Your task to perform on an android device: open app "Walmart Shopping & Grocery" (install if not already installed) Image 0: 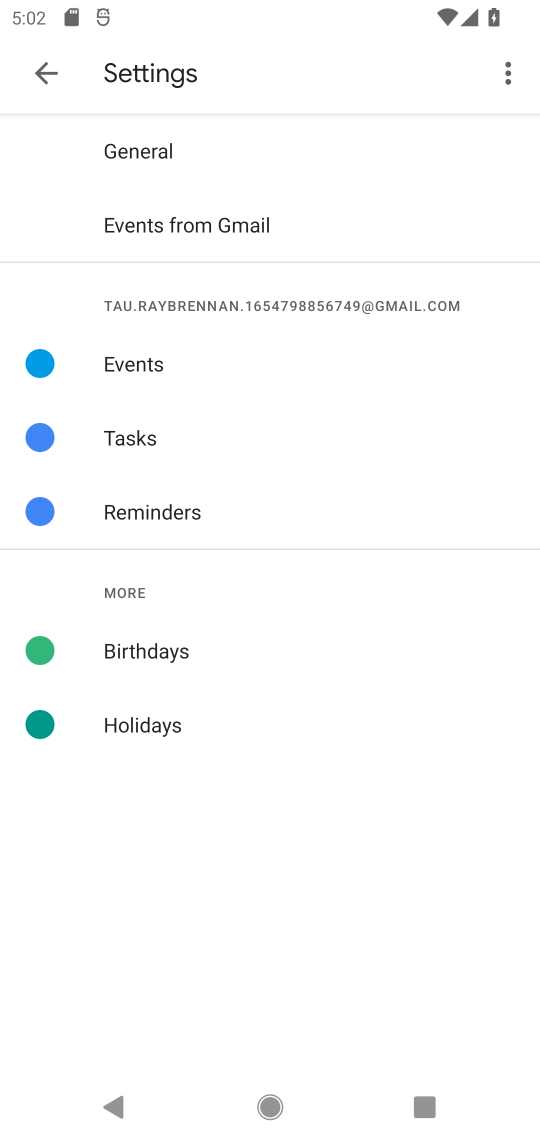
Step 0: press home button
Your task to perform on an android device: open app "Walmart Shopping & Grocery" (install if not already installed) Image 1: 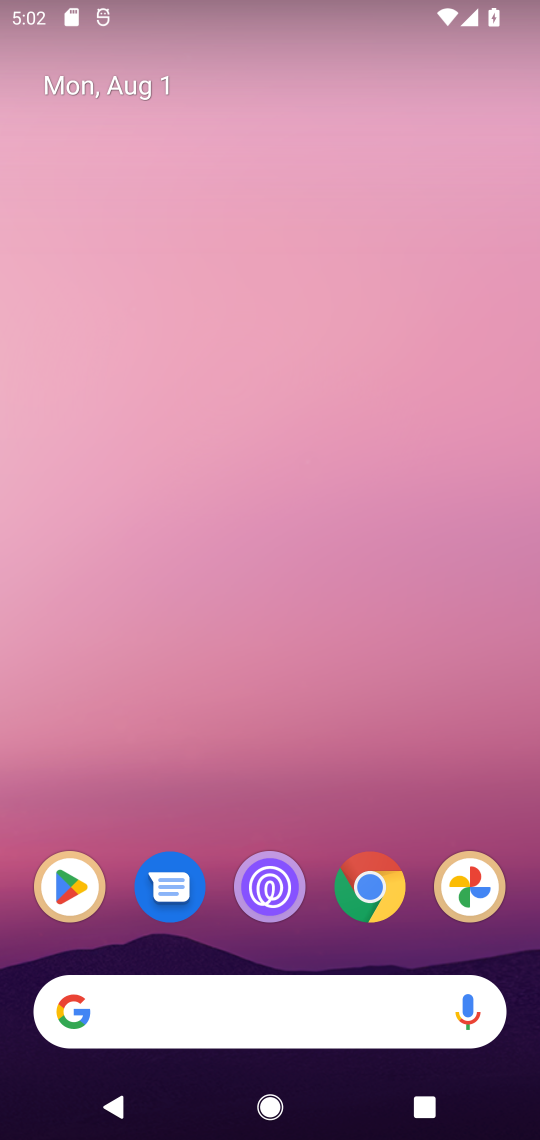
Step 1: click (76, 854)
Your task to perform on an android device: open app "Walmart Shopping & Grocery" (install if not already installed) Image 2: 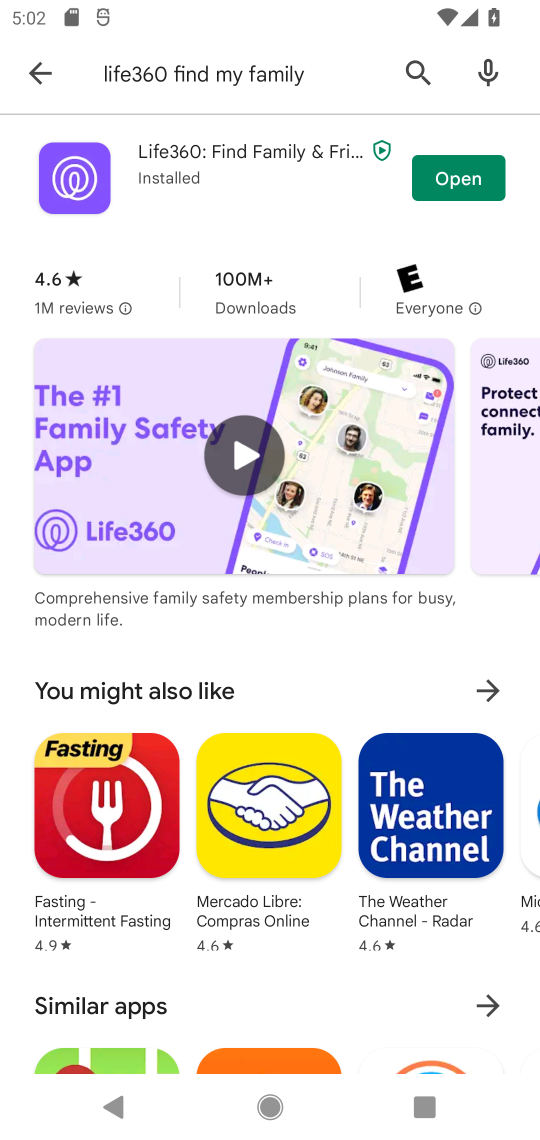
Step 2: click (27, 67)
Your task to perform on an android device: open app "Walmart Shopping & Grocery" (install if not already installed) Image 3: 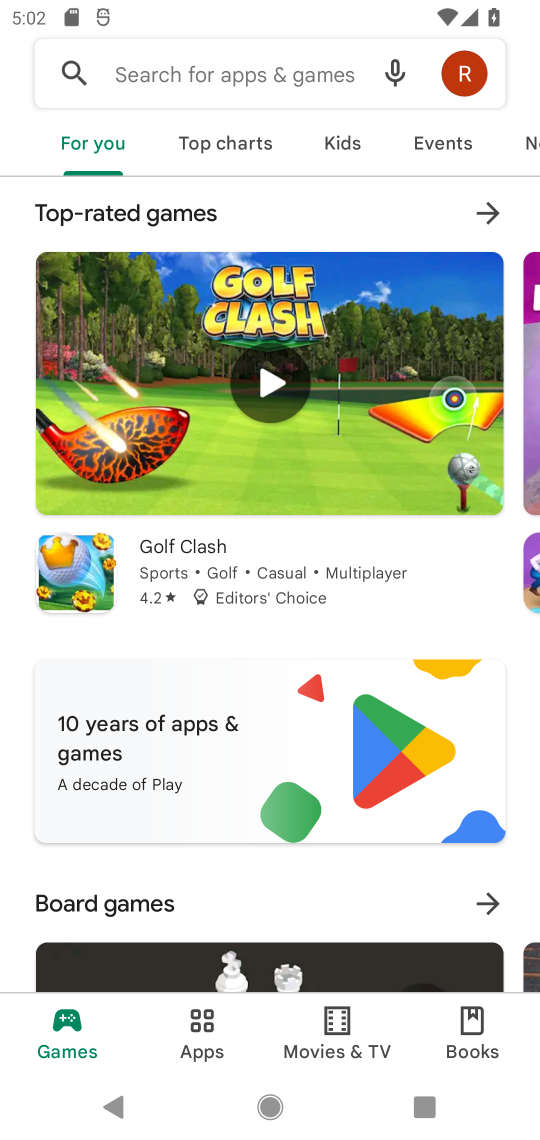
Step 3: click (142, 65)
Your task to perform on an android device: open app "Walmart Shopping & Grocery" (install if not already installed) Image 4: 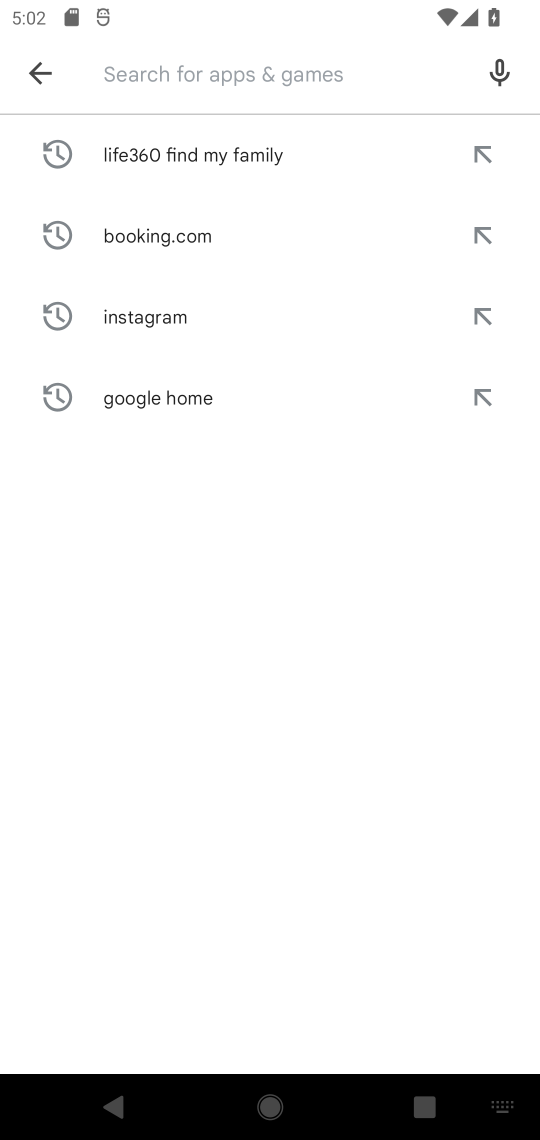
Step 4: type "Walmart"
Your task to perform on an android device: open app "Walmart Shopping & Grocery" (install if not already installed) Image 5: 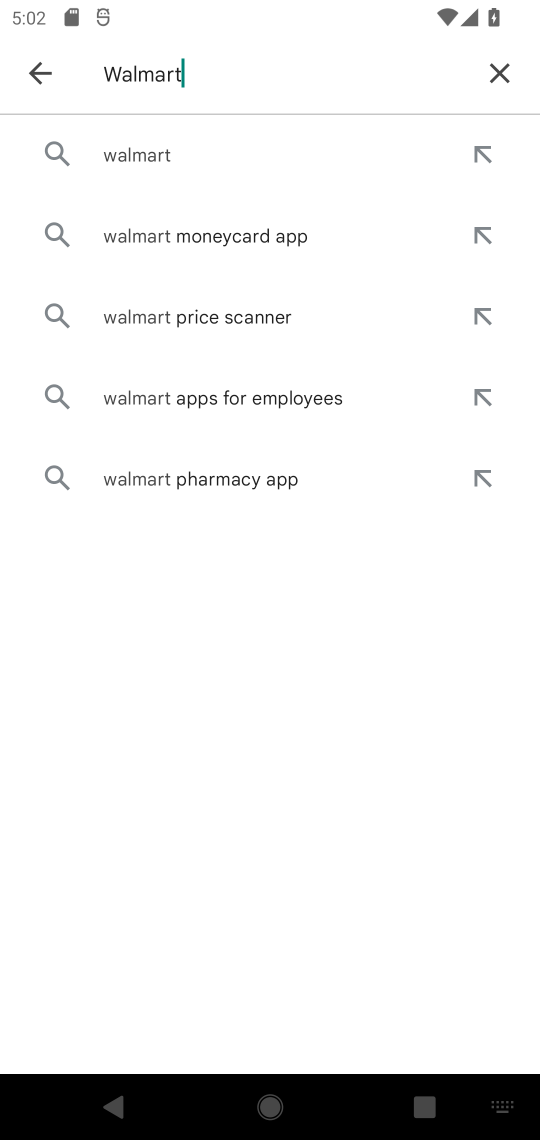
Step 5: click (156, 146)
Your task to perform on an android device: open app "Walmart Shopping & Grocery" (install if not already installed) Image 6: 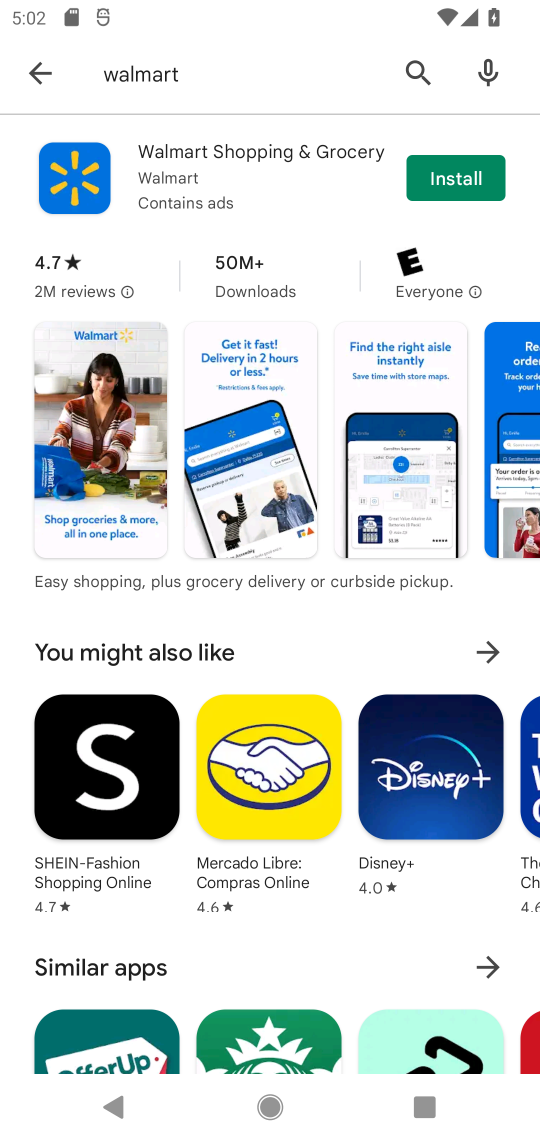
Step 6: click (432, 167)
Your task to perform on an android device: open app "Walmart Shopping & Grocery" (install if not already installed) Image 7: 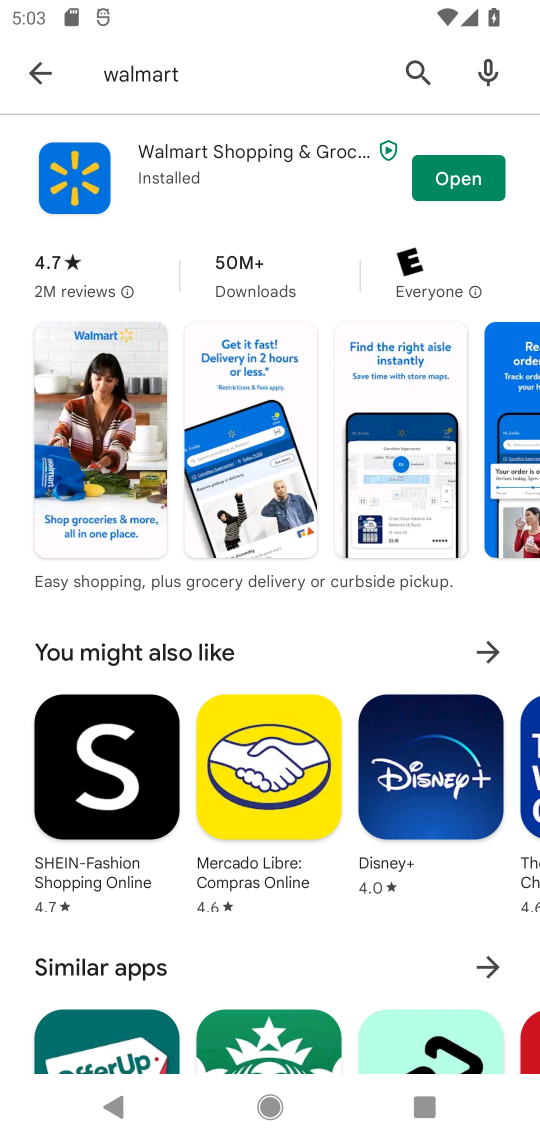
Step 7: click (414, 181)
Your task to perform on an android device: open app "Walmart Shopping & Grocery" (install if not already installed) Image 8: 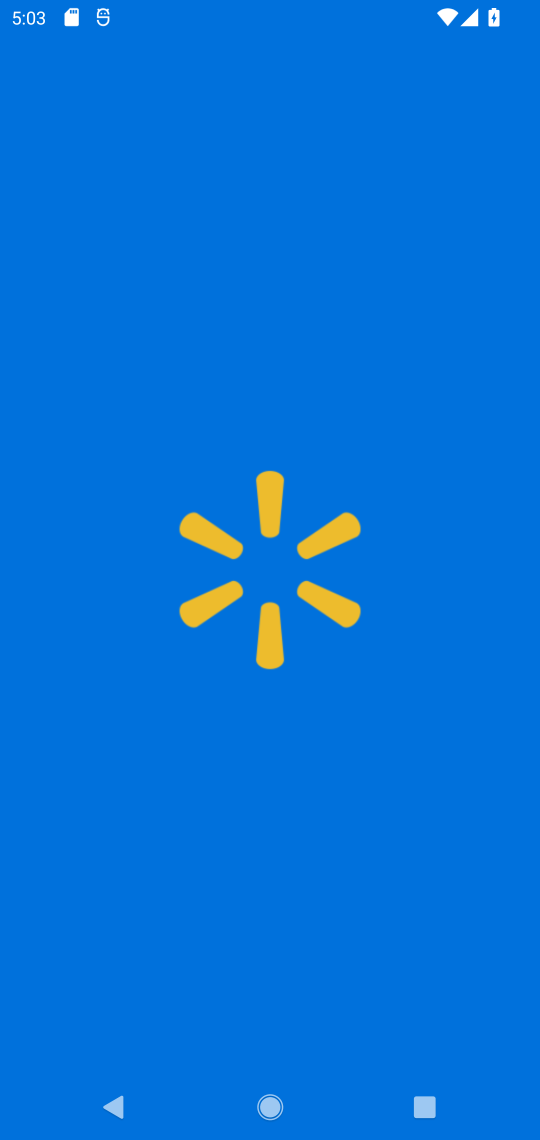
Step 8: task complete